Your task to perform on an android device: Is it going to rain today? Image 0: 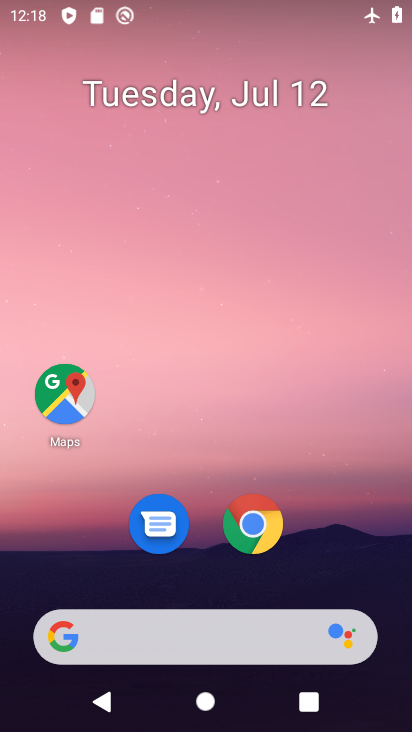
Step 0: click (236, 635)
Your task to perform on an android device: Is it going to rain today? Image 1: 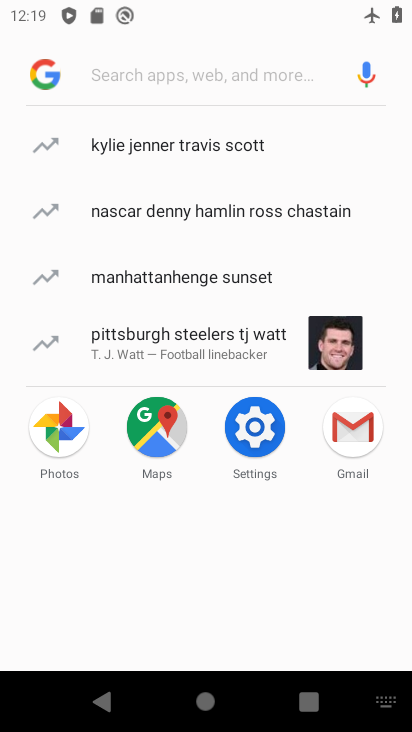
Step 1: type "weather"
Your task to perform on an android device: Is it going to rain today? Image 2: 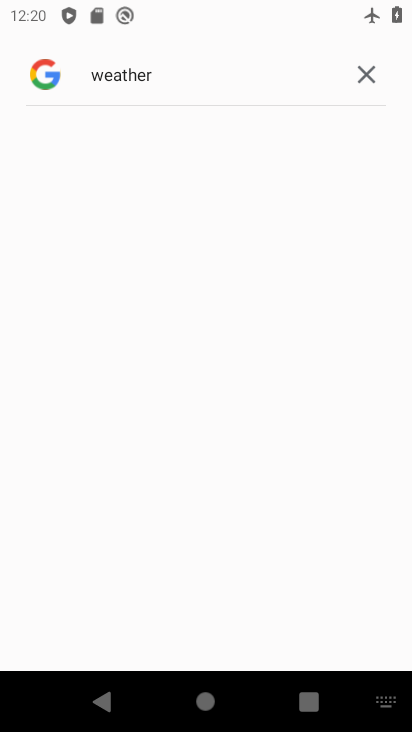
Step 2: task complete